Your task to perform on an android device: stop showing notifications on the lock screen Image 0: 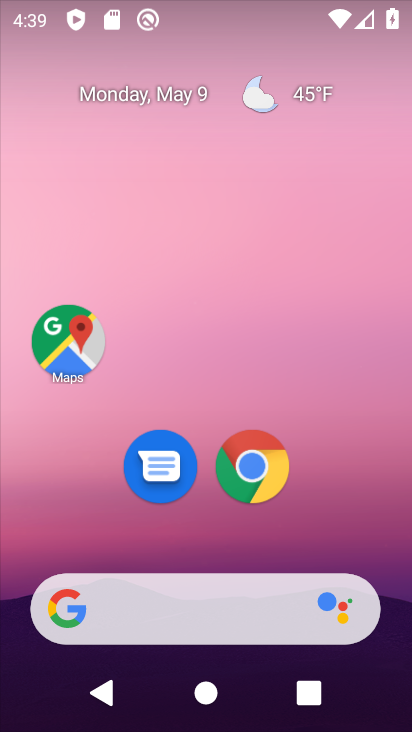
Step 0: drag from (332, 423) to (334, 53)
Your task to perform on an android device: stop showing notifications on the lock screen Image 1: 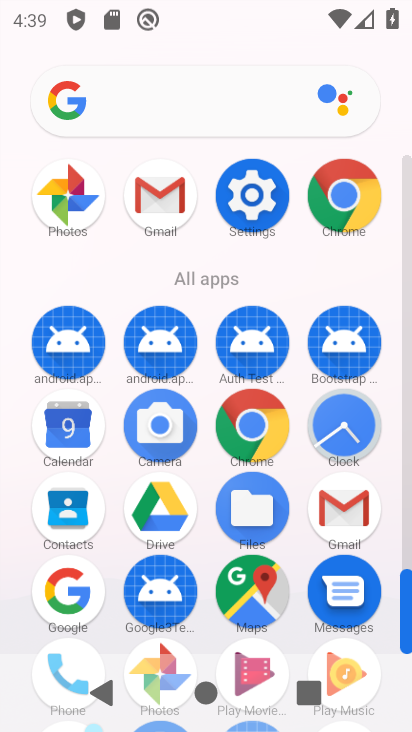
Step 1: click (18, 226)
Your task to perform on an android device: stop showing notifications on the lock screen Image 2: 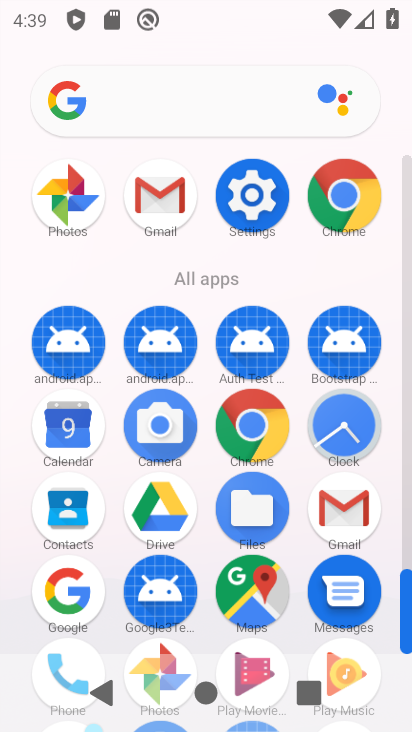
Step 2: click (253, 185)
Your task to perform on an android device: stop showing notifications on the lock screen Image 3: 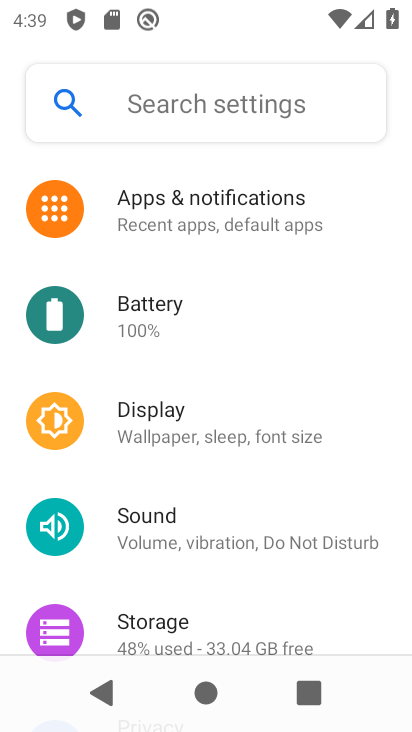
Step 3: drag from (309, 459) to (300, 138)
Your task to perform on an android device: stop showing notifications on the lock screen Image 4: 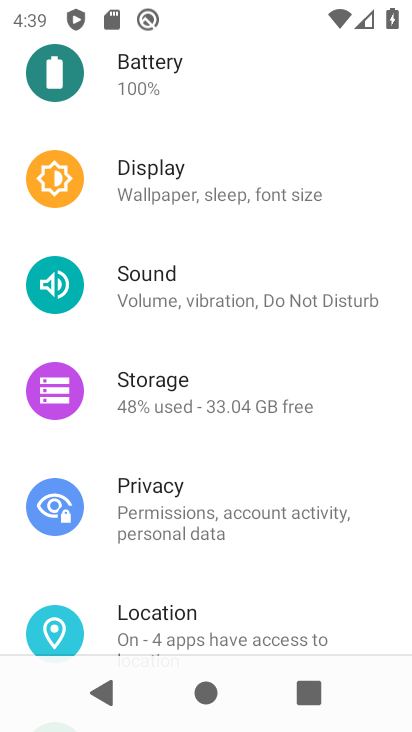
Step 4: drag from (277, 178) to (282, 574)
Your task to perform on an android device: stop showing notifications on the lock screen Image 5: 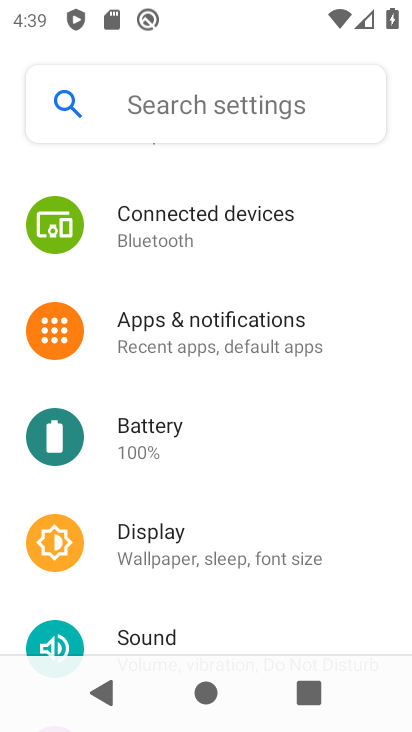
Step 5: click (254, 322)
Your task to perform on an android device: stop showing notifications on the lock screen Image 6: 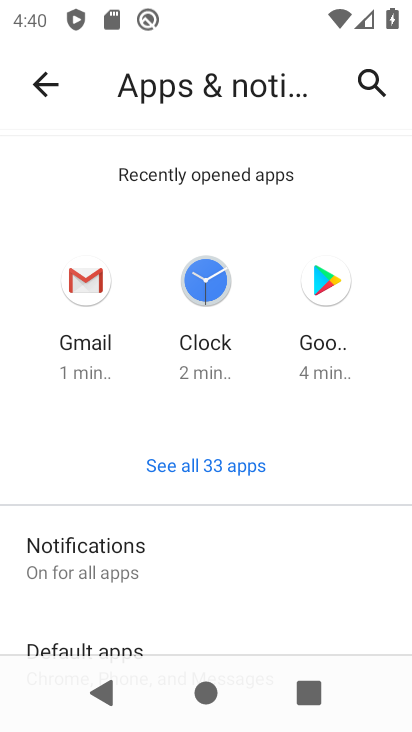
Step 6: drag from (298, 575) to (298, 83)
Your task to perform on an android device: stop showing notifications on the lock screen Image 7: 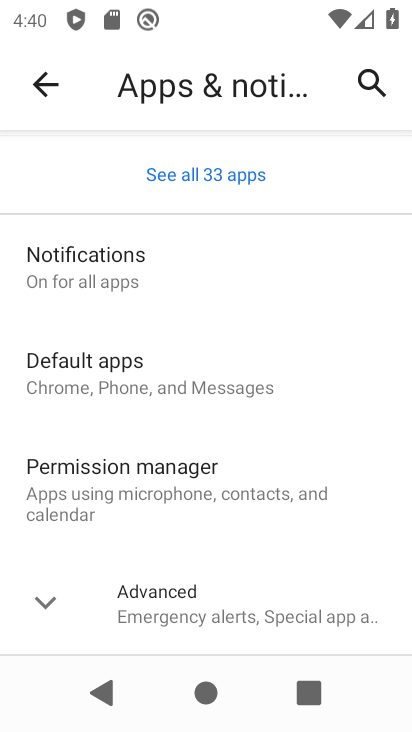
Step 7: click (39, 597)
Your task to perform on an android device: stop showing notifications on the lock screen Image 8: 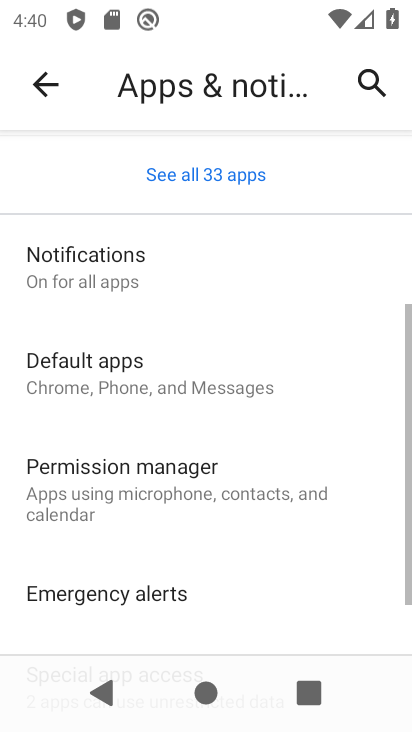
Step 8: drag from (301, 563) to (303, 234)
Your task to perform on an android device: stop showing notifications on the lock screen Image 9: 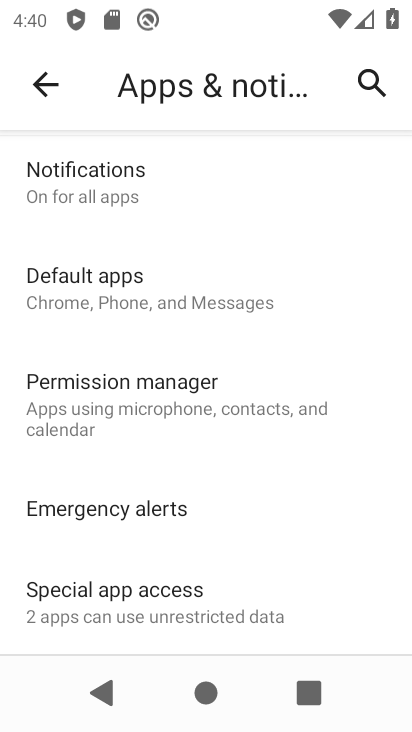
Step 9: click (181, 157)
Your task to perform on an android device: stop showing notifications on the lock screen Image 10: 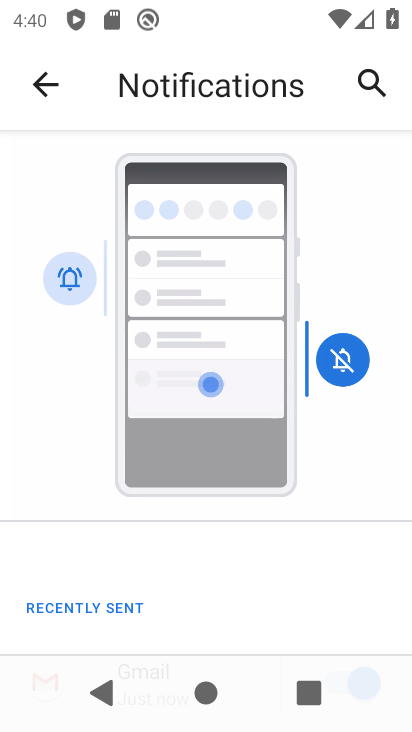
Step 10: drag from (214, 625) to (252, 132)
Your task to perform on an android device: stop showing notifications on the lock screen Image 11: 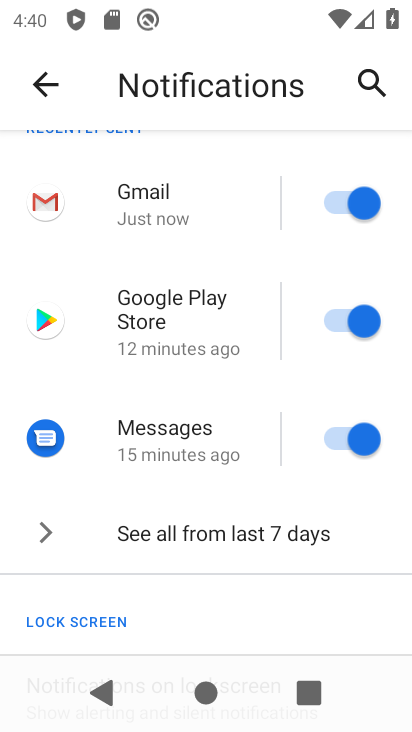
Step 11: drag from (175, 545) to (187, 159)
Your task to perform on an android device: stop showing notifications on the lock screen Image 12: 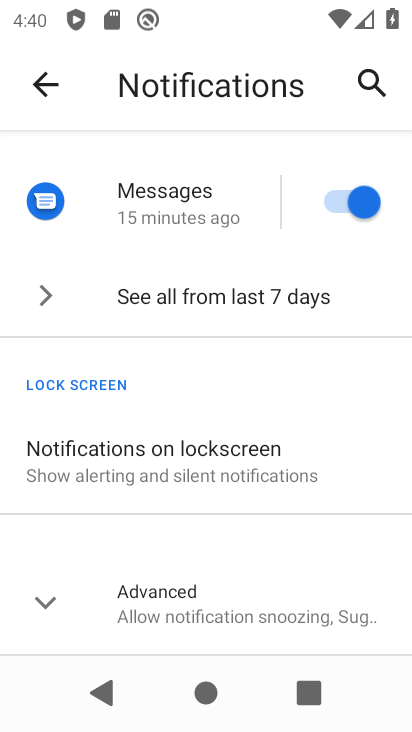
Step 12: click (90, 595)
Your task to perform on an android device: stop showing notifications on the lock screen Image 13: 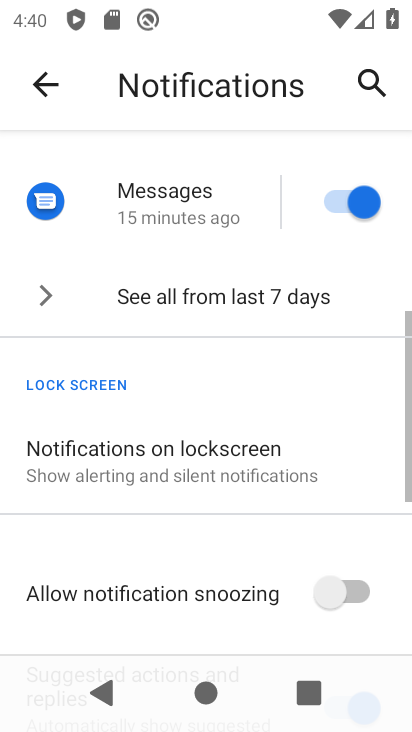
Step 13: drag from (173, 568) to (164, 165)
Your task to perform on an android device: stop showing notifications on the lock screen Image 14: 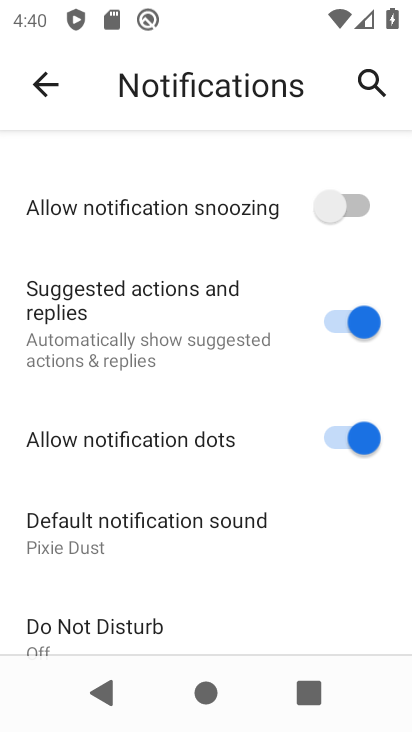
Step 14: drag from (157, 572) to (176, 205)
Your task to perform on an android device: stop showing notifications on the lock screen Image 15: 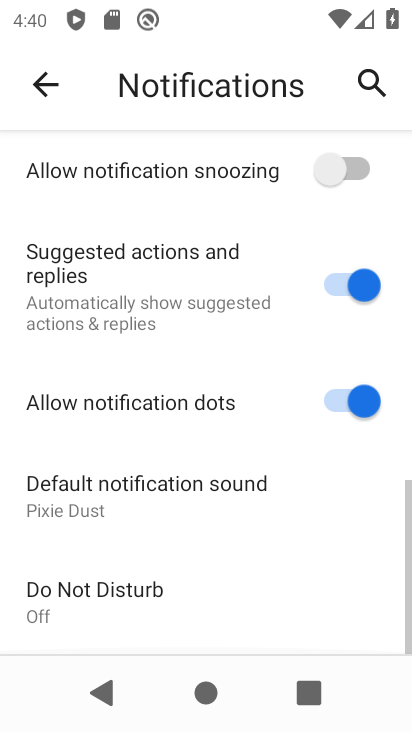
Step 15: drag from (178, 213) to (208, 683)
Your task to perform on an android device: stop showing notifications on the lock screen Image 16: 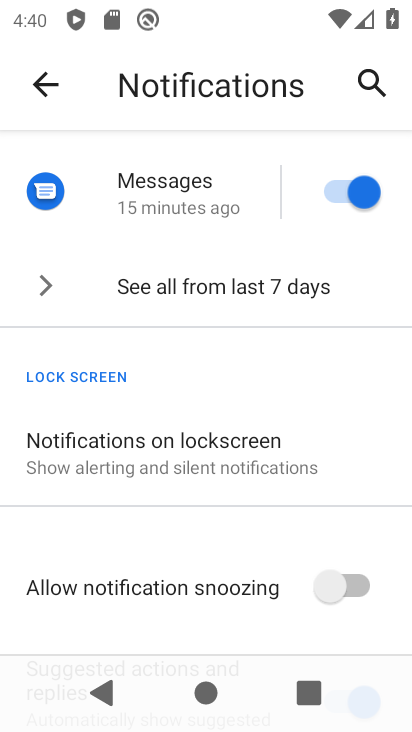
Step 16: click (207, 448)
Your task to perform on an android device: stop showing notifications on the lock screen Image 17: 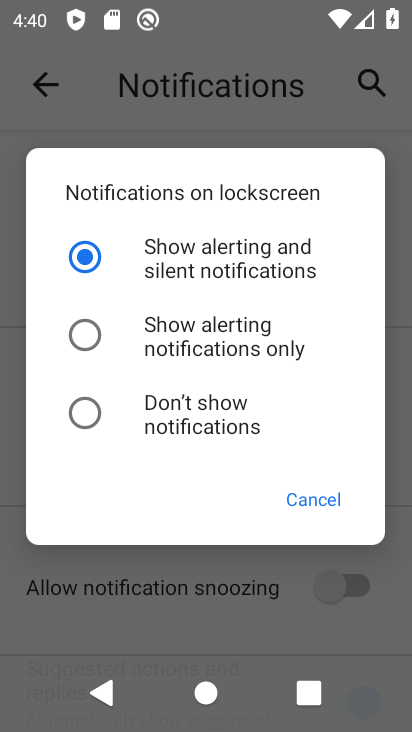
Step 17: click (166, 433)
Your task to perform on an android device: stop showing notifications on the lock screen Image 18: 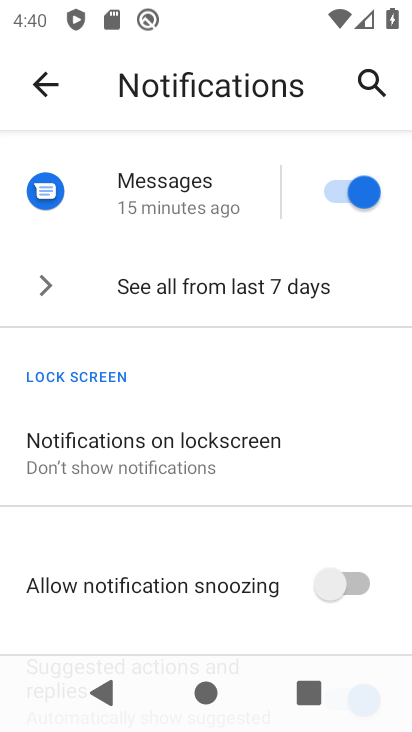
Step 18: task complete